Your task to perform on an android device: Toggle the flashlight Image 0: 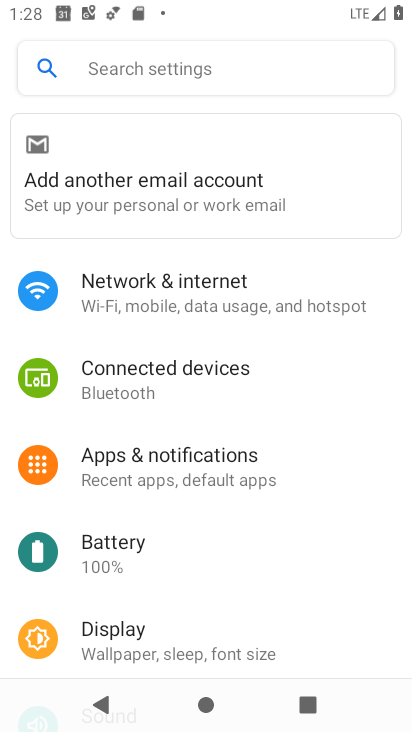
Step 0: drag from (272, 1) to (235, 629)
Your task to perform on an android device: Toggle the flashlight Image 1: 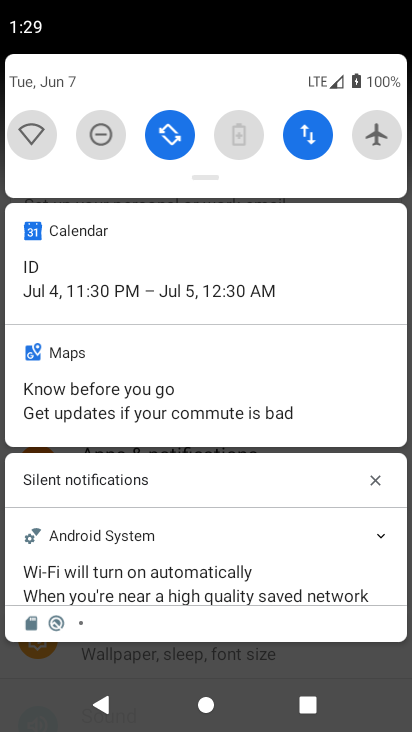
Step 1: task complete